Your task to perform on an android device: turn on the 24-hour format for clock Image 0: 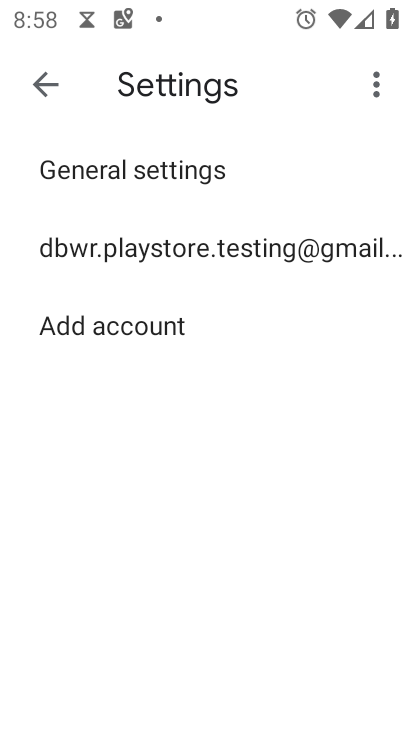
Step 0: press home button
Your task to perform on an android device: turn on the 24-hour format for clock Image 1: 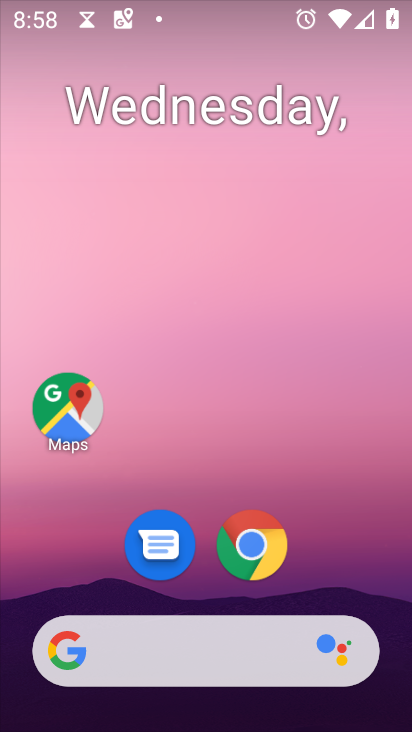
Step 1: drag from (209, 660) to (328, 91)
Your task to perform on an android device: turn on the 24-hour format for clock Image 2: 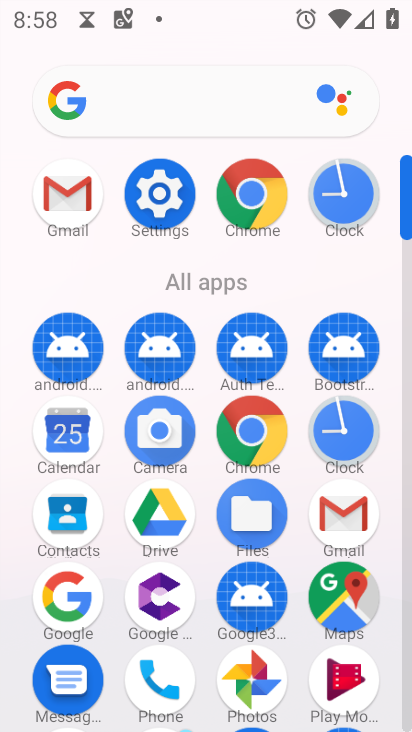
Step 2: click (331, 433)
Your task to perform on an android device: turn on the 24-hour format for clock Image 3: 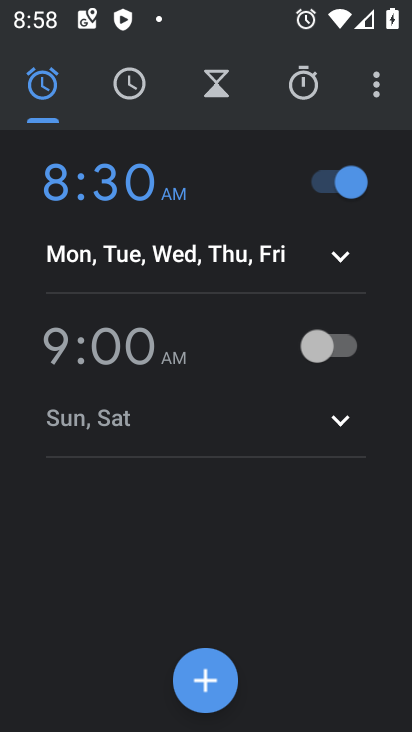
Step 3: click (376, 88)
Your task to perform on an android device: turn on the 24-hour format for clock Image 4: 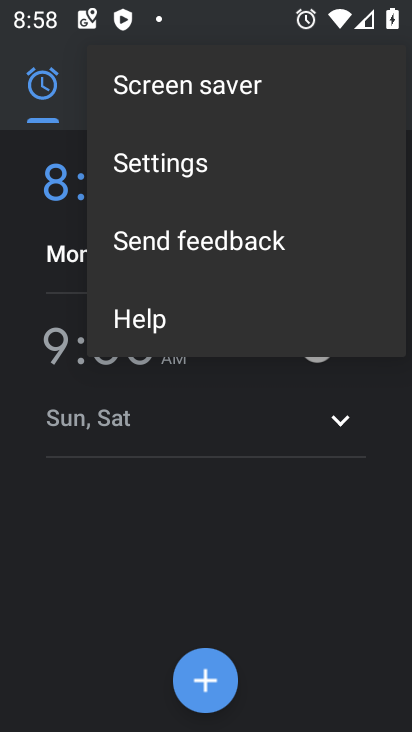
Step 4: click (201, 159)
Your task to perform on an android device: turn on the 24-hour format for clock Image 5: 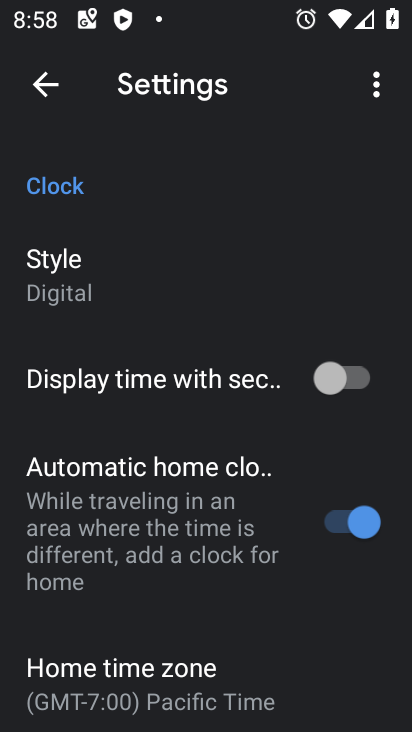
Step 5: drag from (207, 540) to (278, 185)
Your task to perform on an android device: turn on the 24-hour format for clock Image 6: 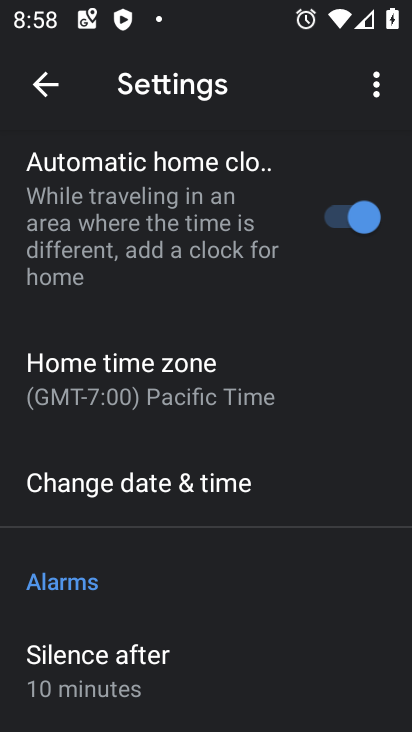
Step 6: click (178, 488)
Your task to perform on an android device: turn on the 24-hour format for clock Image 7: 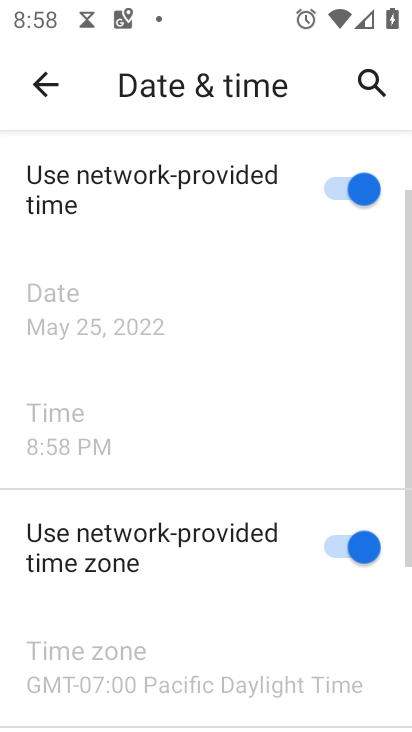
Step 7: drag from (187, 609) to (306, 114)
Your task to perform on an android device: turn on the 24-hour format for clock Image 8: 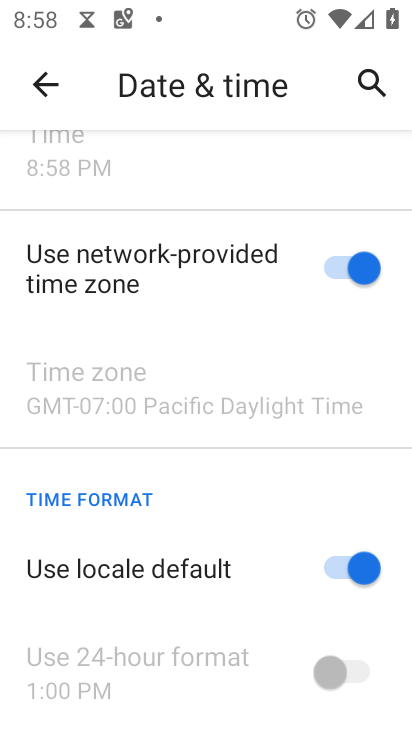
Step 8: click (331, 571)
Your task to perform on an android device: turn on the 24-hour format for clock Image 9: 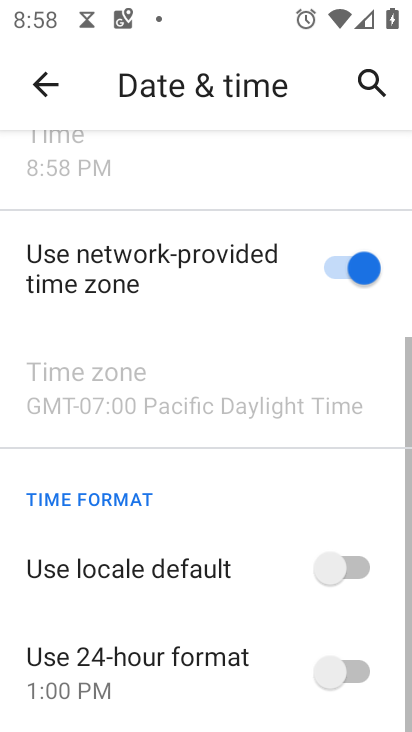
Step 9: click (354, 678)
Your task to perform on an android device: turn on the 24-hour format for clock Image 10: 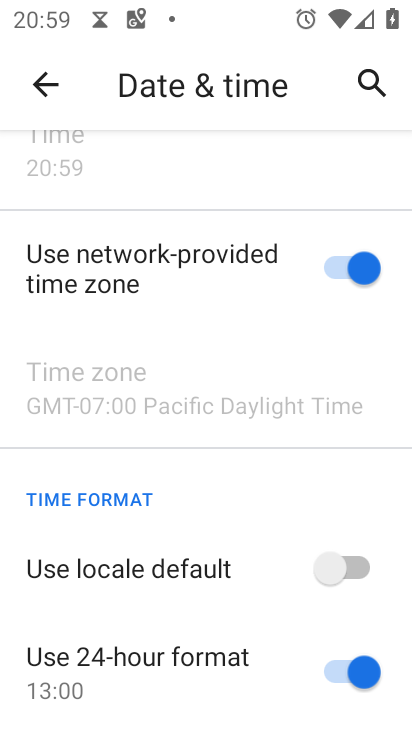
Step 10: task complete